Your task to perform on an android device: Set the phone to "Do not disturb". Image 0: 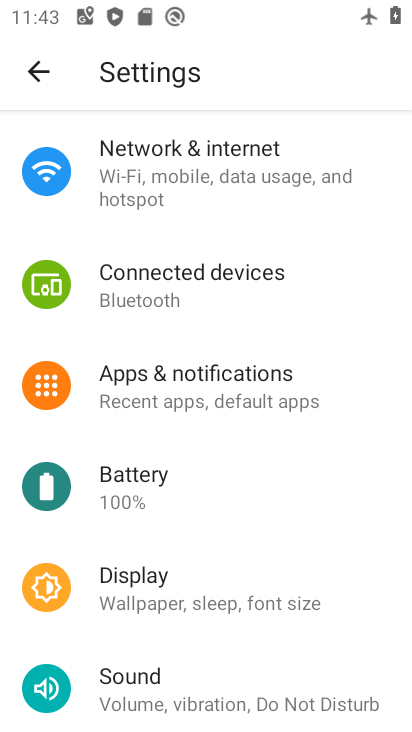
Step 0: click (246, 695)
Your task to perform on an android device: Set the phone to "Do not disturb". Image 1: 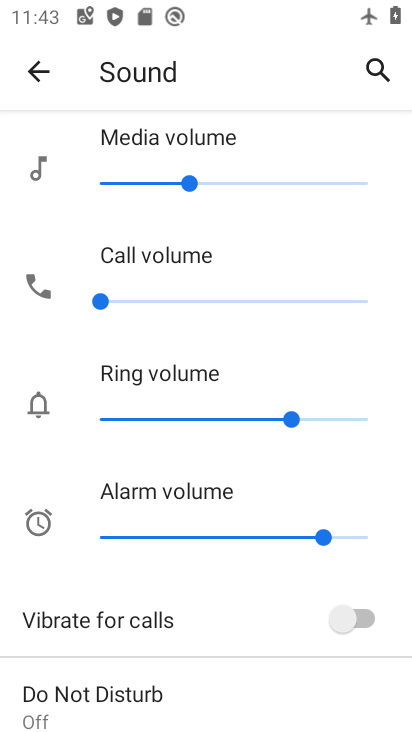
Step 1: drag from (240, 635) to (237, 332)
Your task to perform on an android device: Set the phone to "Do not disturb". Image 2: 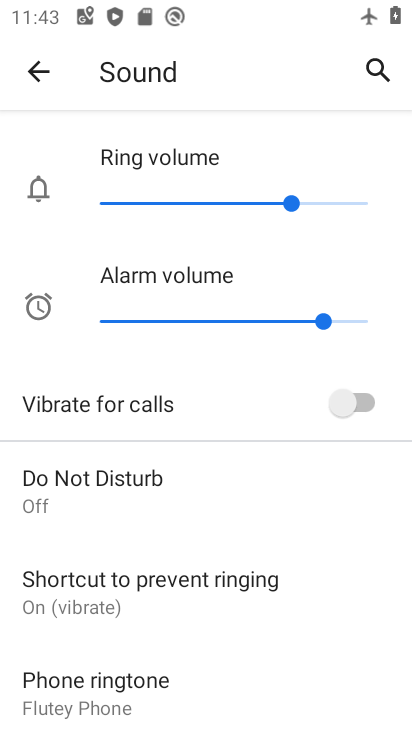
Step 2: click (88, 505)
Your task to perform on an android device: Set the phone to "Do not disturb". Image 3: 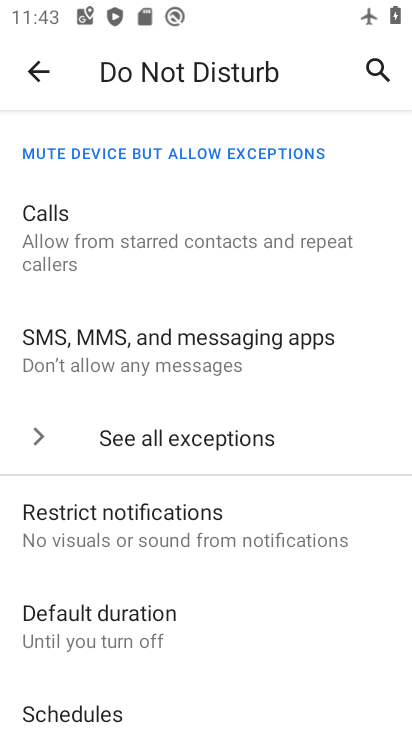
Step 3: drag from (239, 565) to (239, 223)
Your task to perform on an android device: Set the phone to "Do not disturb". Image 4: 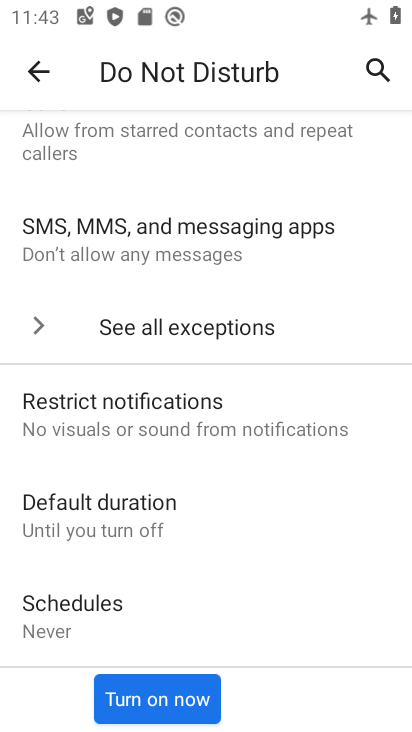
Step 4: click (183, 697)
Your task to perform on an android device: Set the phone to "Do not disturb". Image 5: 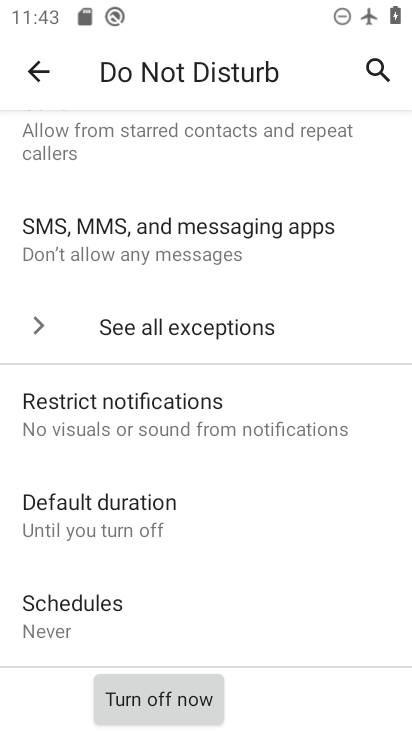
Step 5: task complete